Your task to perform on an android device: What's the weather going to be tomorrow? Image 0: 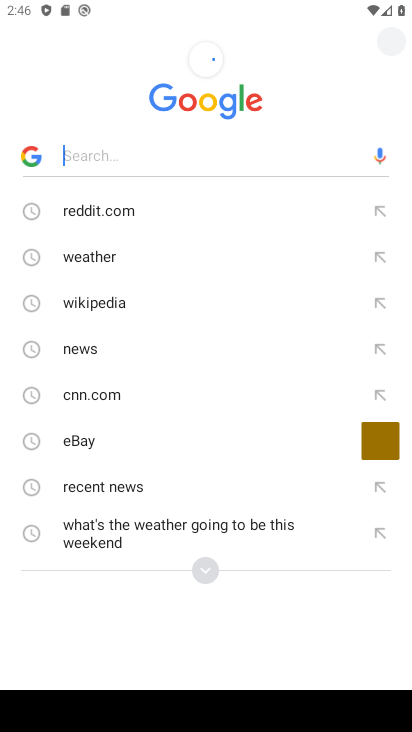
Step 0: press home button
Your task to perform on an android device: What's the weather going to be tomorrow? Image 1: 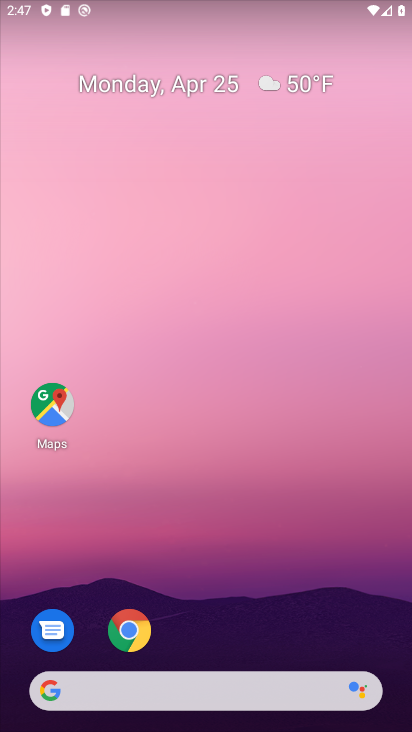
Step 1: click (126, 641)
Your task to perform on an android device: What's the weather going to be tomorrow? Image 2: 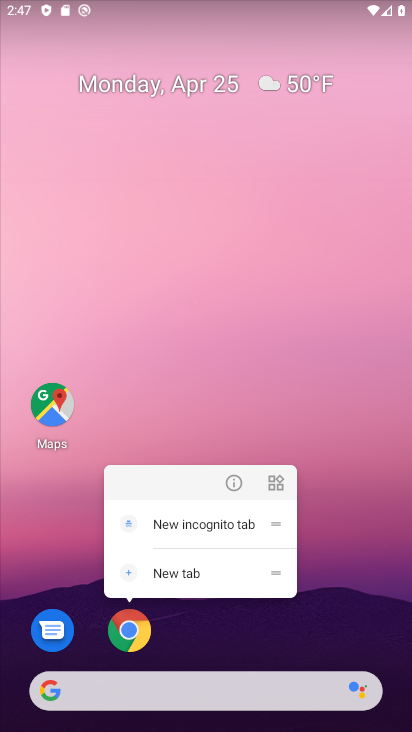
Step 2: click (134, 617)
Your task to perform on an android device: What's the weather going to be tomorrow? Image 3: 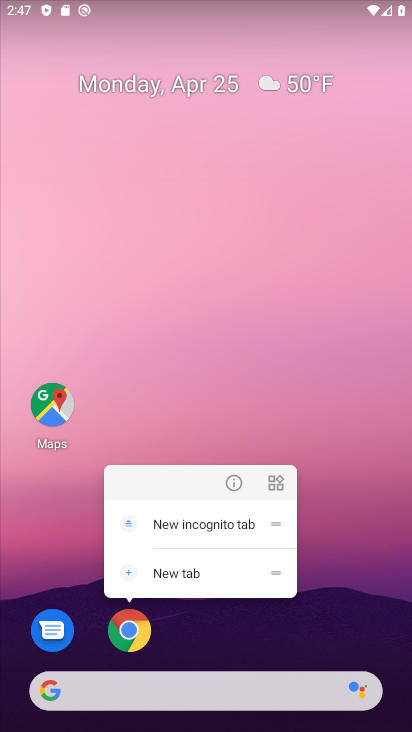
Step 3: click (131, 631)
Your task to perform on an android device: What's the weather going to be tomorrow? Image 4: 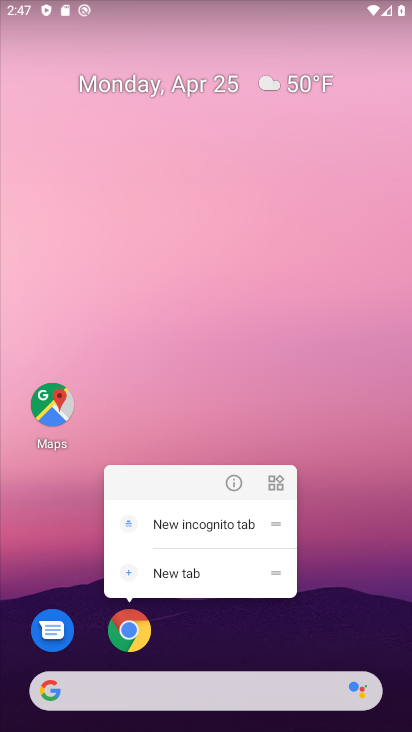
Step 4: click (131, 631)
Your task to perform on an android device: What's the weather going to be tomorrow? Image 5: 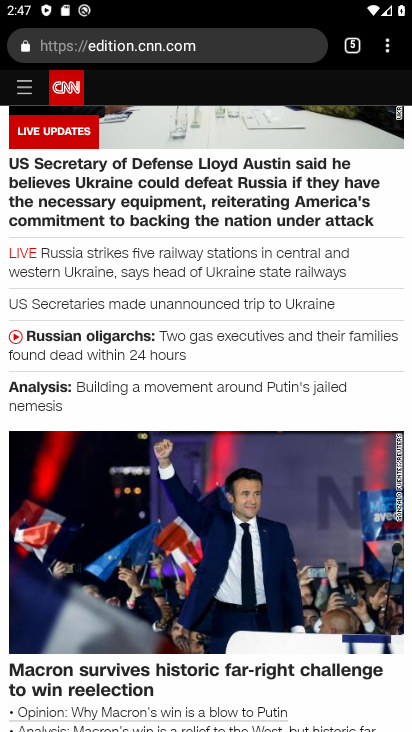
Step 5: click (357, 51)
Your task to perform on an android device: What's the weather going to be tomorrow? Image 6: 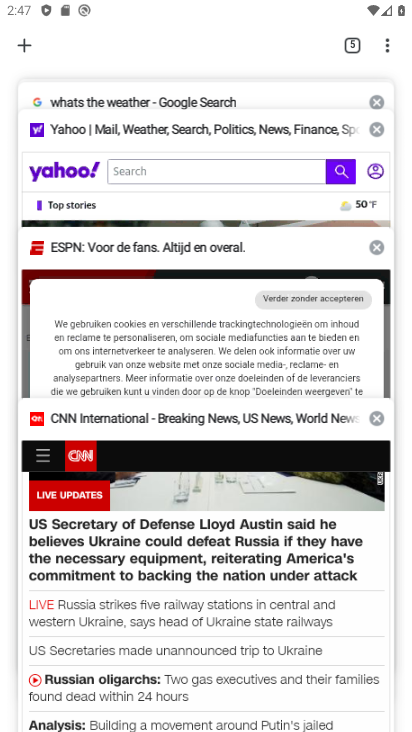
Step 6: click (29, 45)
Your task to perform on an android device: What's the weather going to be tomorrow? Image 7: 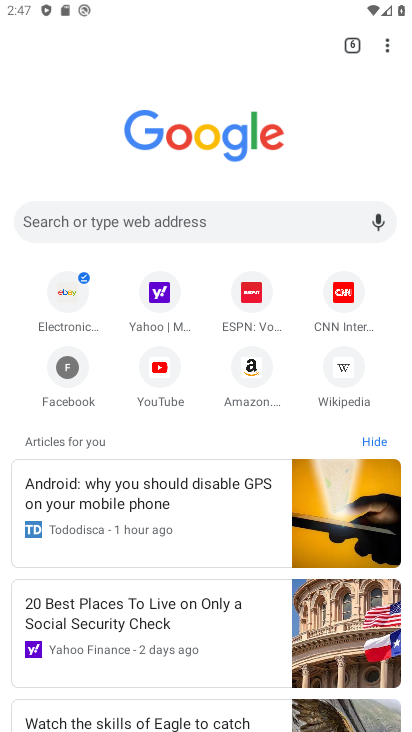
Step 7: click (103, 225)
Your task to perform on an android device: What's the weather going to be tomorrow? Image 8: 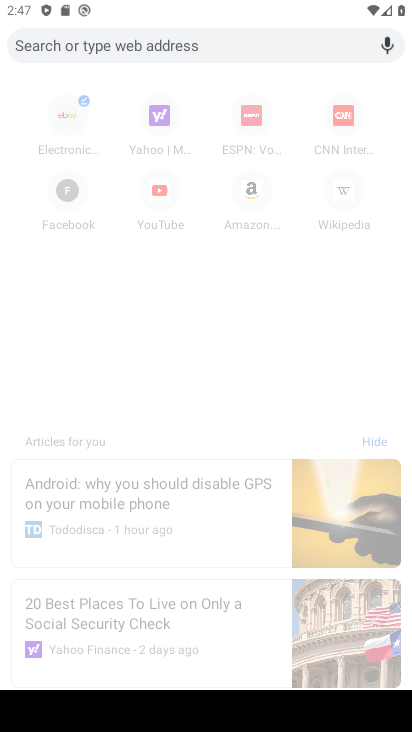
Step 8: type "whats the weather going to be tomorrow"
Your task to perform on an android device: What's the weather going to be tomorrow? Image 9: 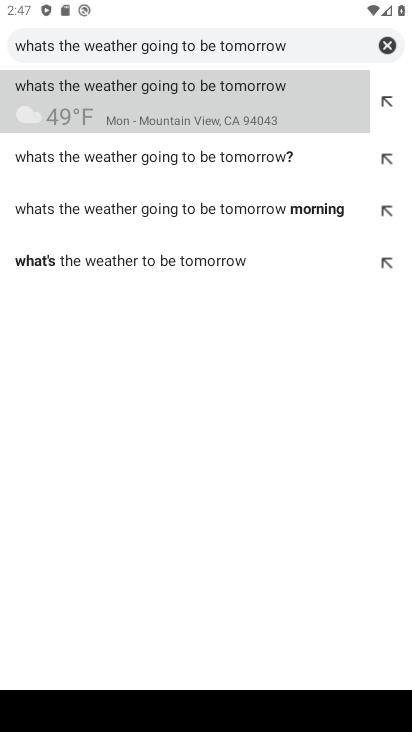
Step 9: click (250, 110)
Your task to perform on an android device: What's the weather going to be tomorrow? Image 10: 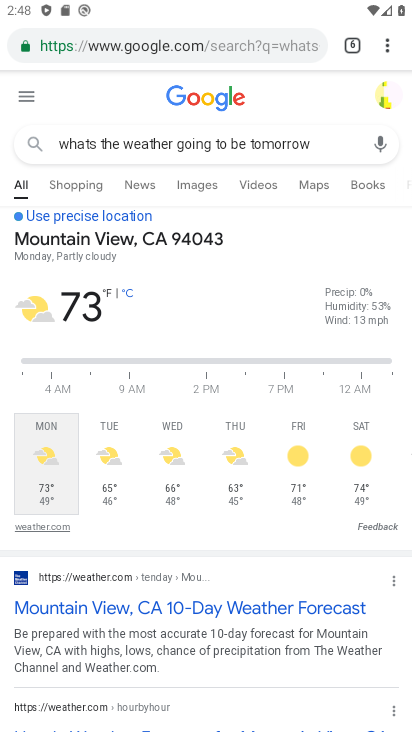
Step 10: task complete